Your task to perform on an android device: uninstall "Adobe Express: Graphic Design" Image 0: 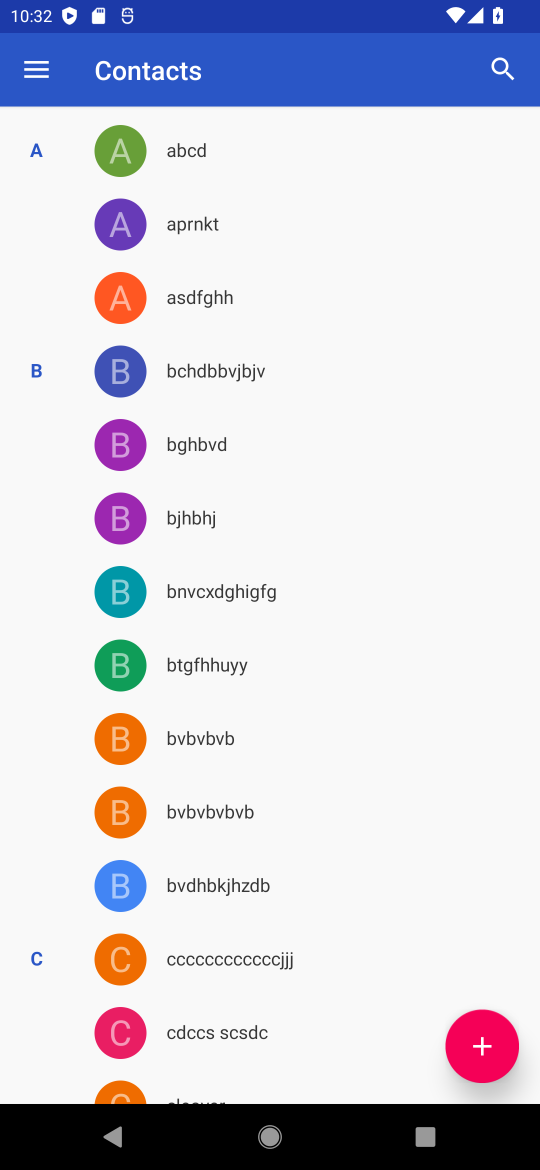
Step 0: press home button
Your task to perform on an android device: uninstall "Adobe Express: Graphic Design" Image 1: 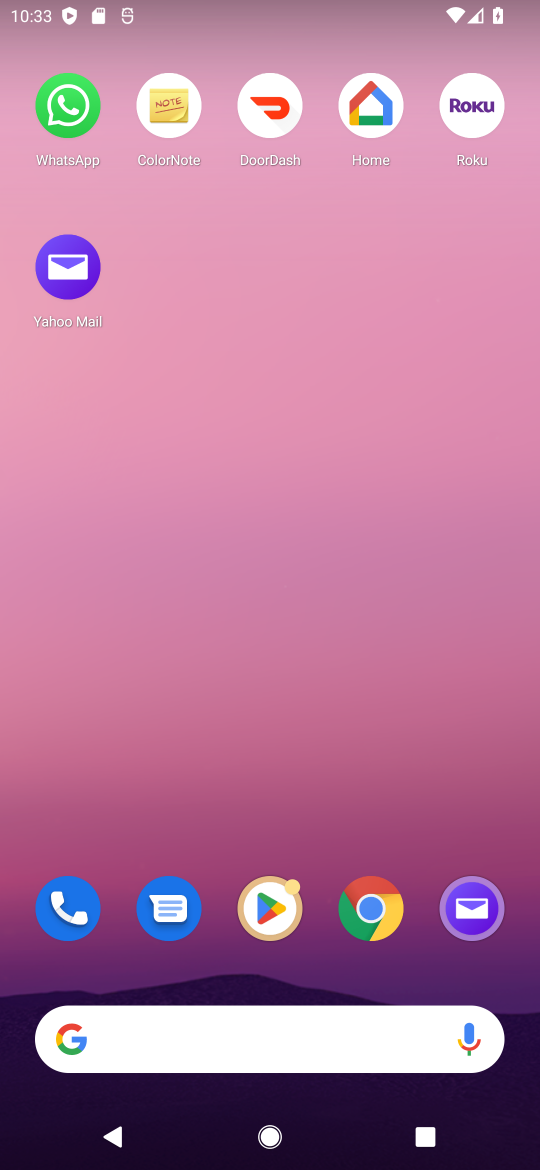
Step 1: click (261, 898)
Your task to perform on an android device: uninstall "Adobe Express: Graphic Design" Image 2: 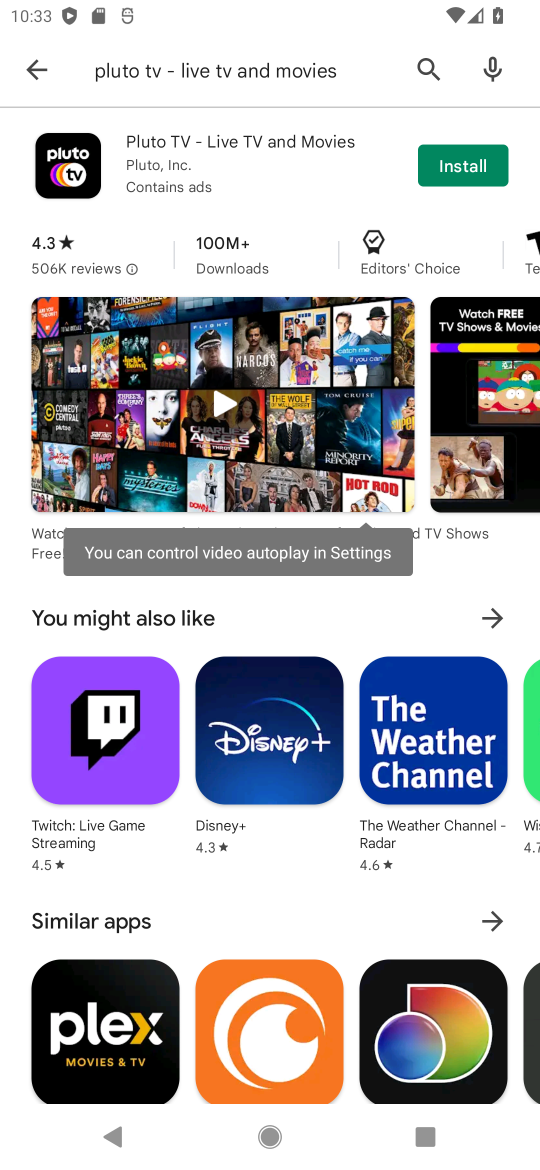
Step 2: click (25, 62)
Your task to perform on an android device: uninstall "Adobe Express: Graphic Design" Image 3: 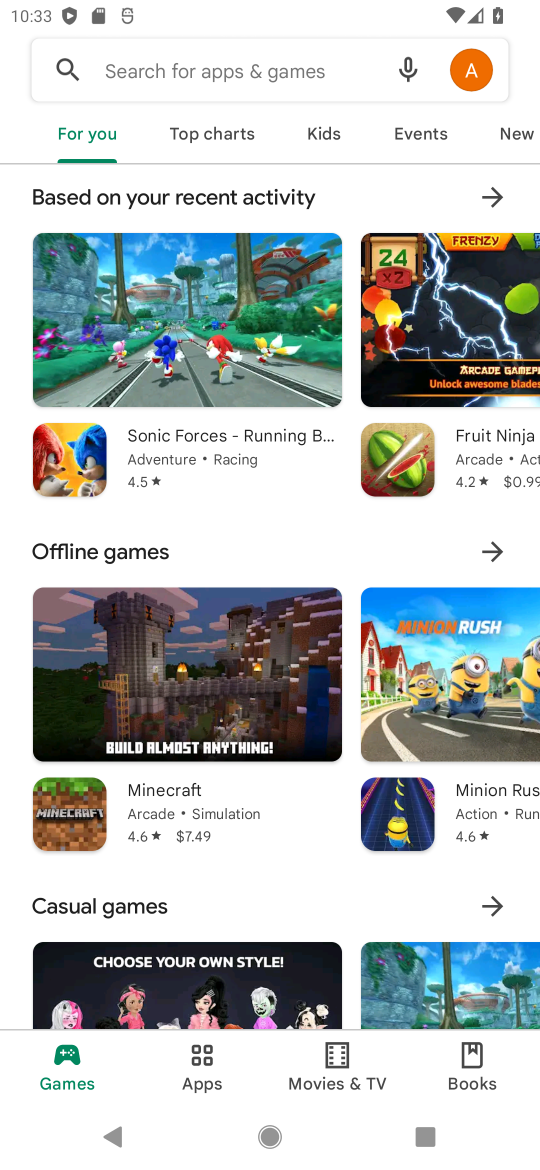
Step 3: click (102, 80)
Your task to perform on an android device: uninstall "Adobe Express: Graphic Design" Image 4: 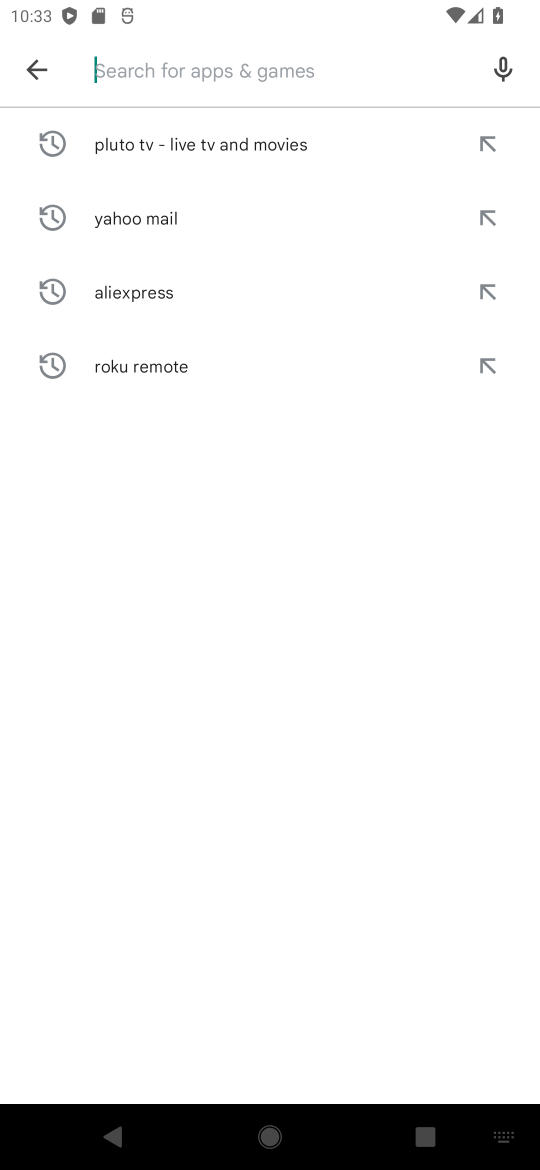
Step 4: type "Adobe Express: Graphic Design"
Your task to perform on an android device: uninstall "Adobe Express: Graphic Design" Image 5: 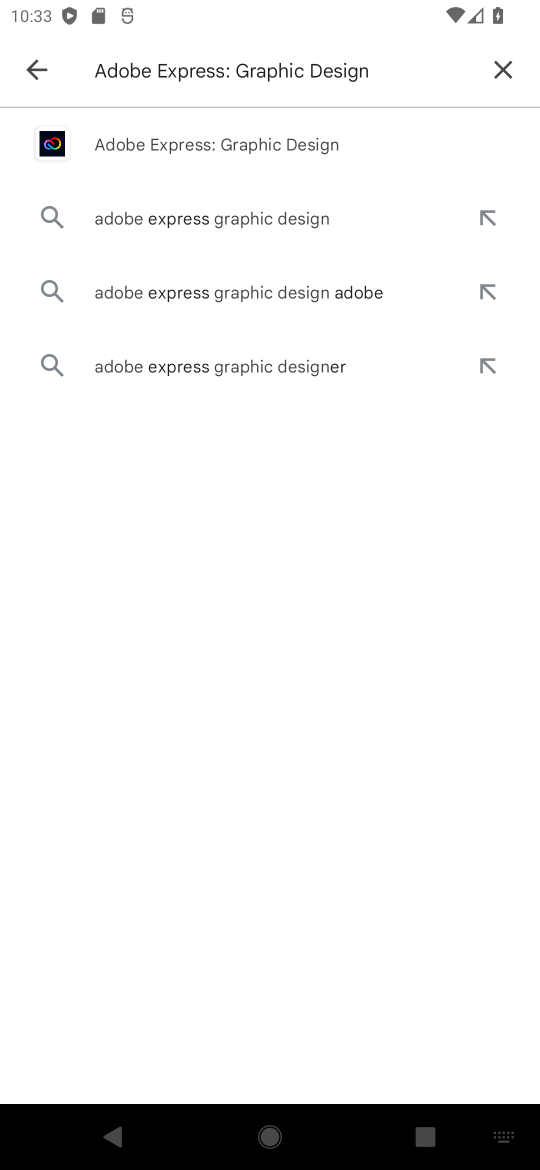
Step 5: click (197, 150)
Your task to perform on an android device: uninstall "Adobe Express: Graphic Design" Image 6: 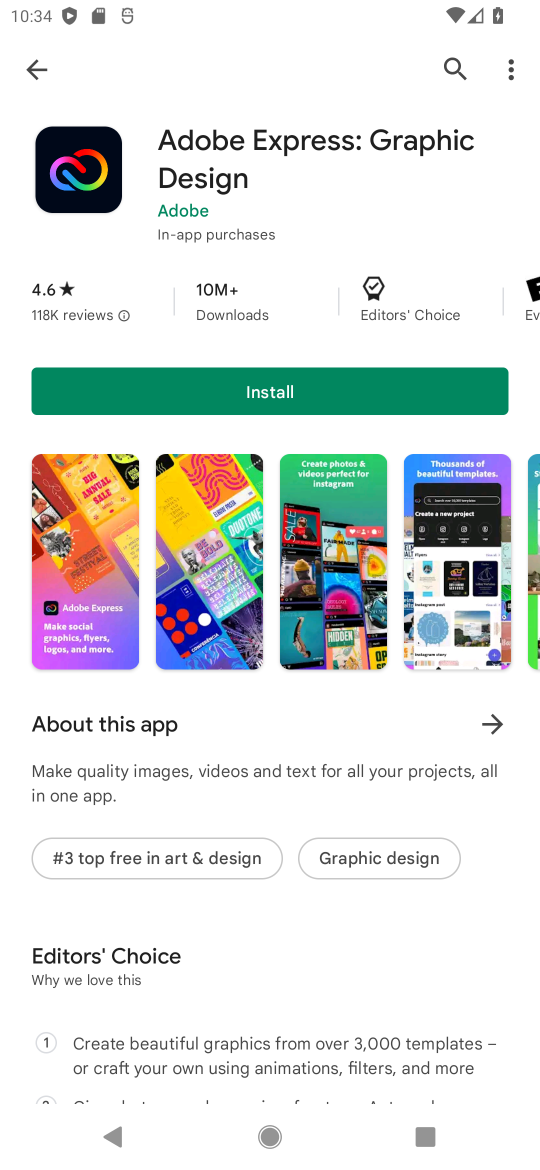
Step 6: task complete